Your task to perform on an android device: change notifications settings Image 0: 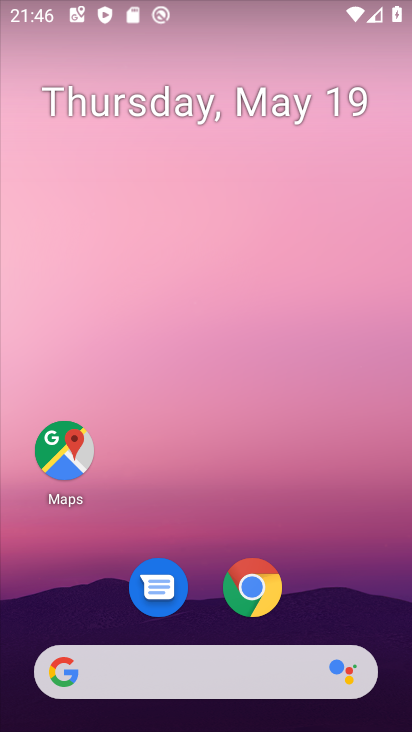
Step 0: drag from (251, 653) to (129, 49)
Your task to perform on an android device: change notifications settings Image 1: 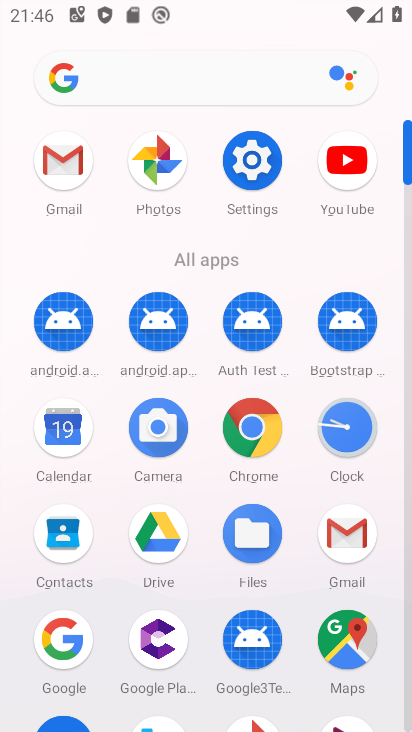
Step 1: click (261, 184)
Your task to perform on an android device: change notifications settings Image 2: 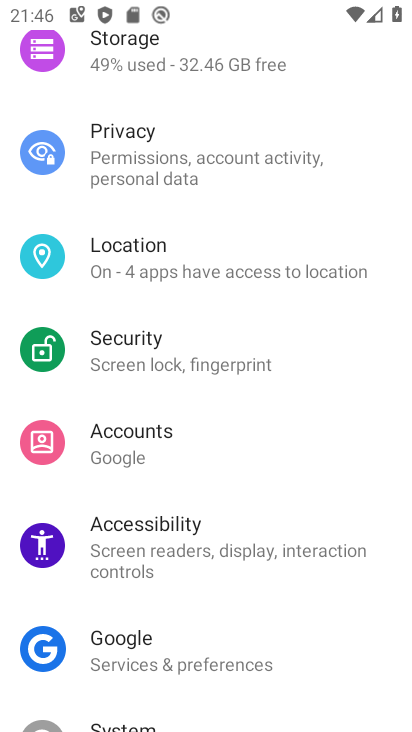
Step 2: drag from (149, 104) to (128, 659)
Your task to perform on an android device: change notifications settings Image 3: 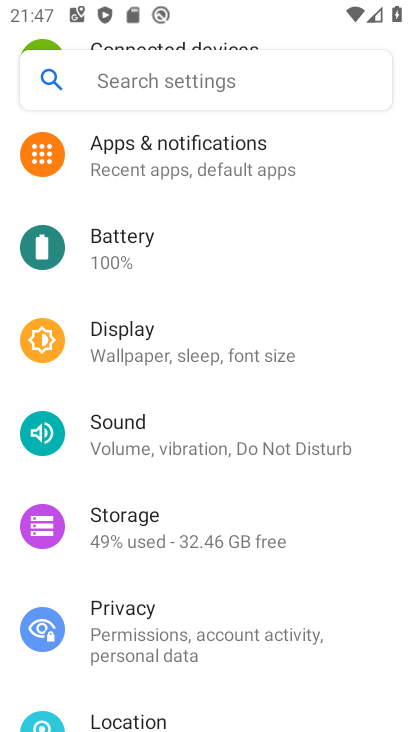
Step 3: click (189, 441)
Your task to perform on an android device: change notifications settings Image 4: 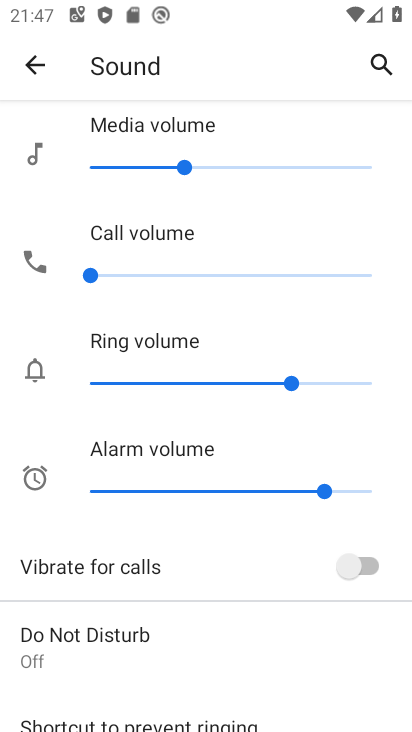
Step 4: click (347, 563)
Your task to perform on an android device: change notifications settings Image 5: 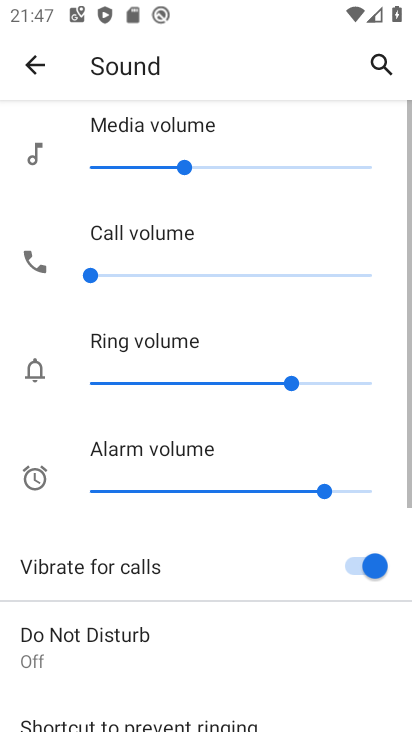
Step 5: task complete